Your task to perform on an android device: set an alarm Image 0: 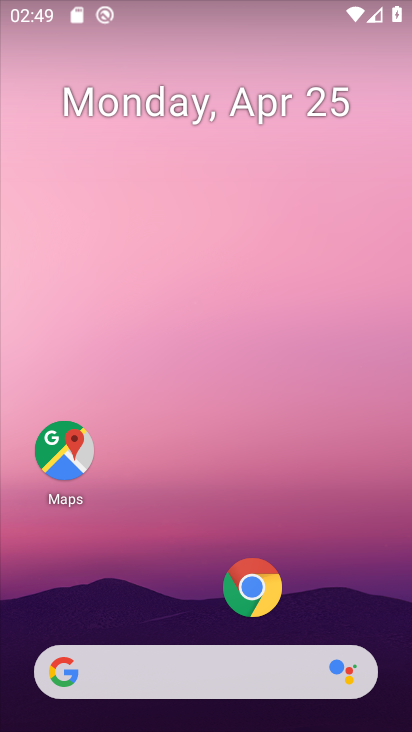
Step 0: drag from (204, 634) to (202, 129)
Your task to perform on an android device: set an alarm Image 1: 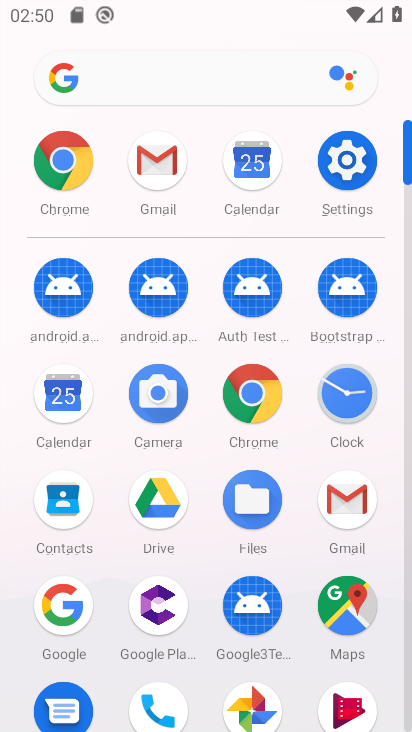
Step 1: click (341, 385)
Your task to perform on an android device: set an alarm Image 2: 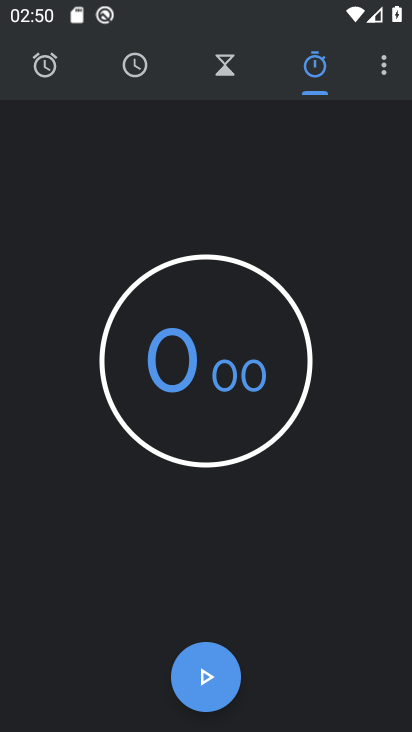
Step 2: click (374, 64)
Your task to perform on an android device: set an alarm Image 3: 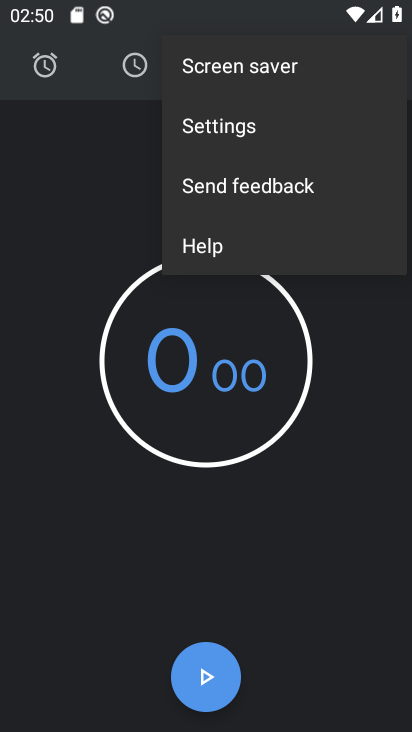
Step 3: click (17, 245)
Your task to perform on an android device: set an alarm Image 4: 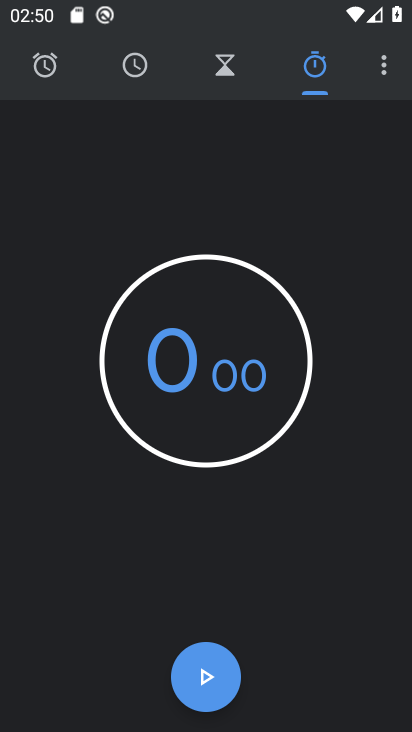
Step 4: click (45, 60)
Your task to perform on an android device: set an alarm Image 5: 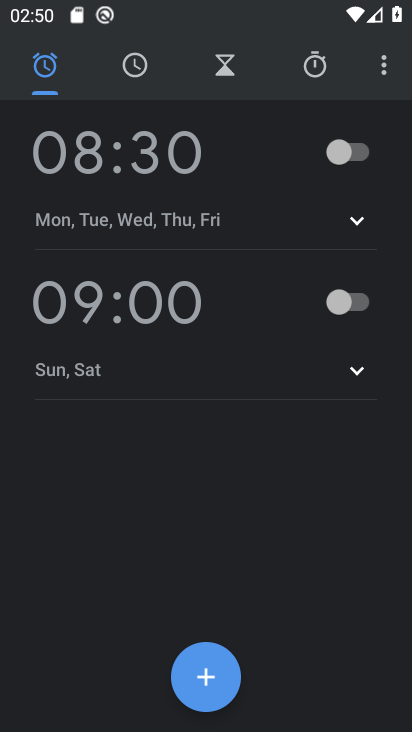
Step 5: task complete